Your task to perform on an android device: turn on data saver in the chrome app Image 0: 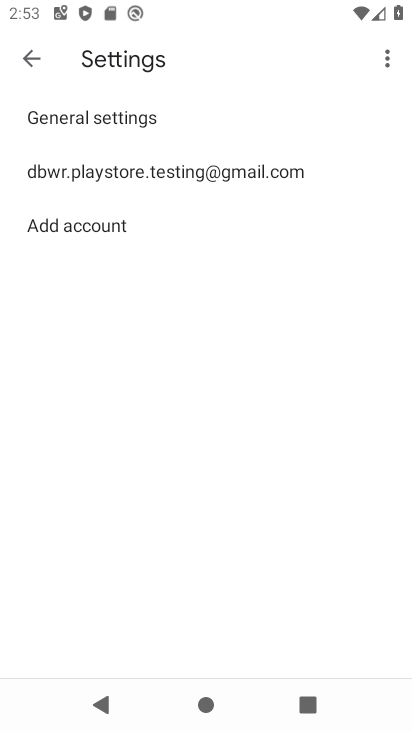
Step 0: press back button
Your task to perform on an android device: turn on data saver in the chrome app Image 1: 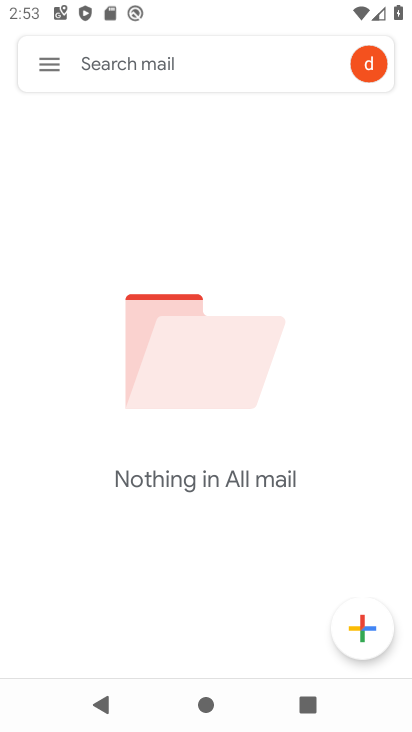
Step 1: press back button
Your task to perform on an android device: turn on data saver in the chrome app Image 2: 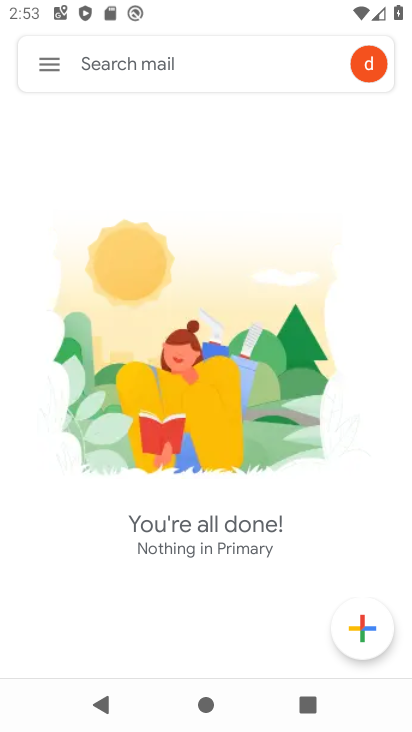
Step 2: press home button
Your task to perform on an android device: turn on data saver in the chrome app Image 3: 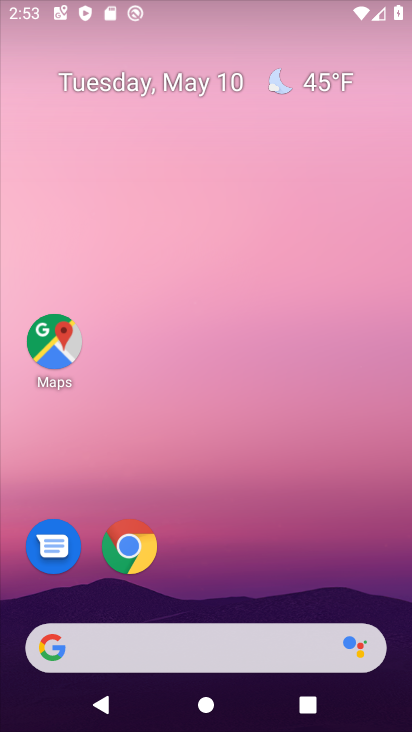
Step 3: drag from (268, 564) to (245, 5)
Your task to perform on an android device: turn on data saver in the chrome app Image 4: 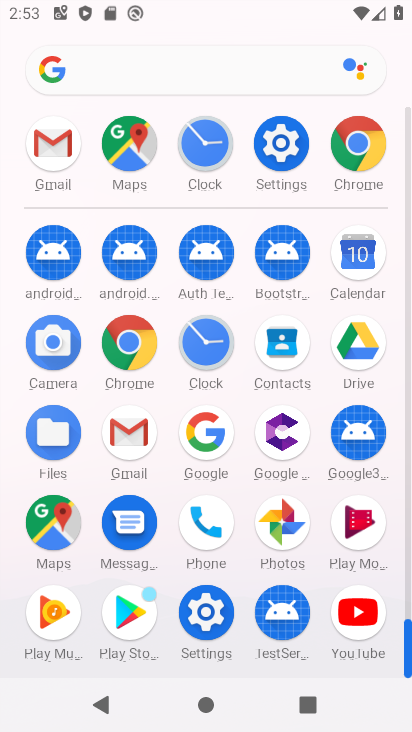
Step 4: click (361, 139)
Your task to perform on an android device: turn on data saver in the chrome app Image 5: 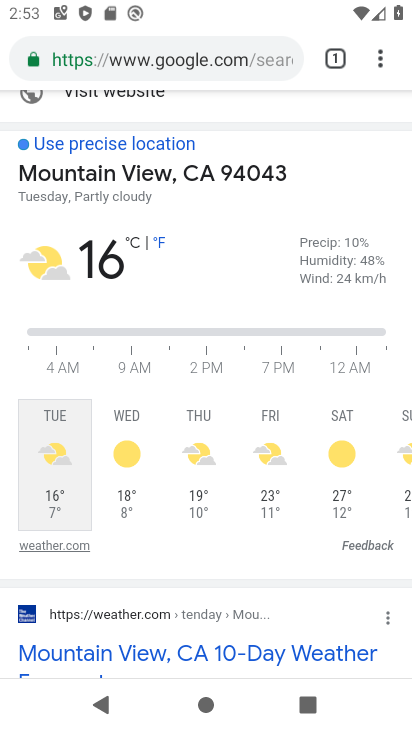
Step 5: drag from (192, 129) to (196, 458)
Your task to perform on an android device: turn on data saver in the chrome app Image 6: 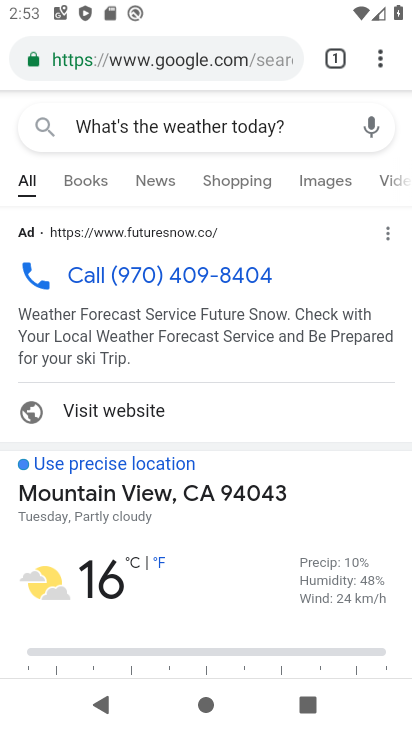
Step 6: click (373, 54)
Your task to perform on an android device: turn on data saver in the chrome app Image 7: 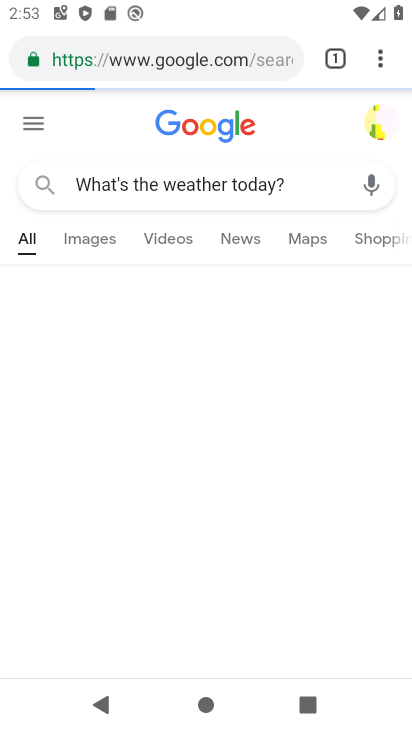
Step 7: drag from (196, 567) to (193, 525)
Your task to perform on an android device: turn on data saver in the chrome app Image 8: 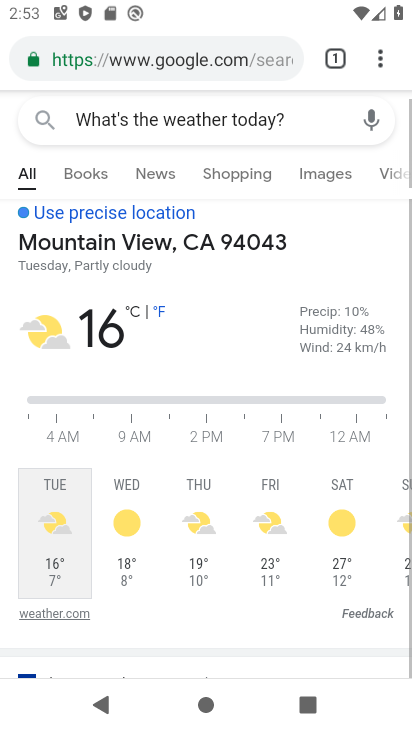
Step 8: drag from (379, 62) to (178, 555)
Your task to perform on an android device: turn on data saver in the chrome app Image 9: 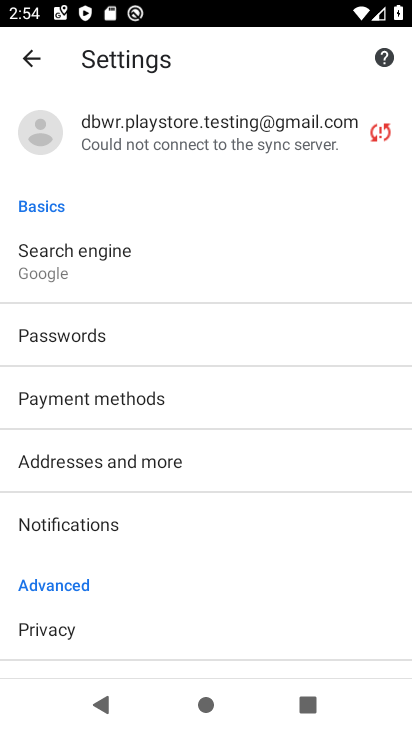
Step 9: drag from (233, 503) to (230, 177)
Your task to perform on an android device: turn on data saver in the chrome app Image 10: 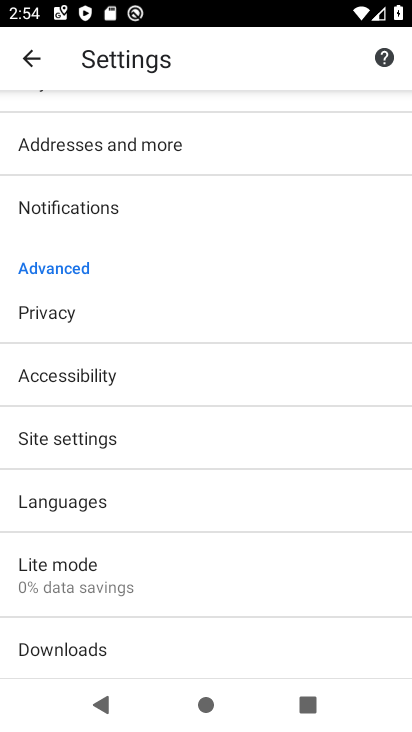
Step 10: drag from (183, 549) to (202, 133)
Your task to perform on an android device: turn on data saver in the chrome app Image 11: 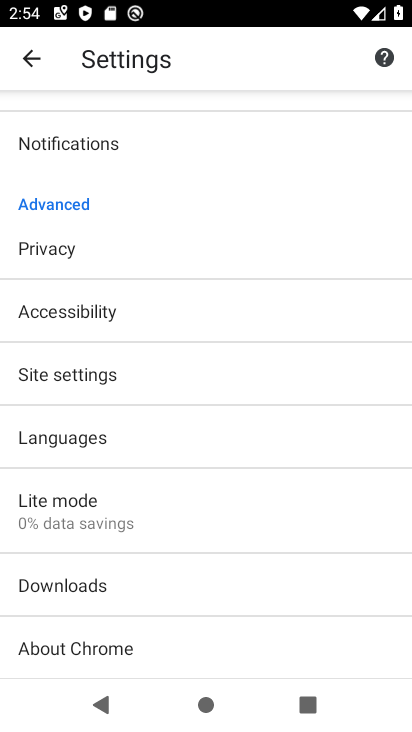
Step 11: click (139, 517)
Your task to perform on an android device: turn on data saver in the chrome app Image 12: 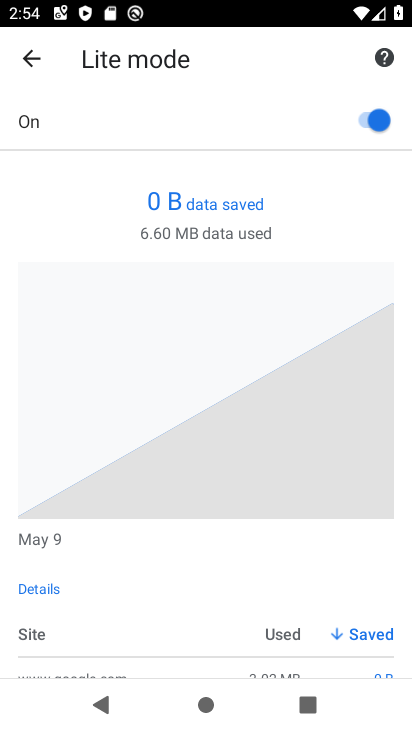
Step 12: task complete